Your task to perform on an android device: turn off sleep mode Image 0: 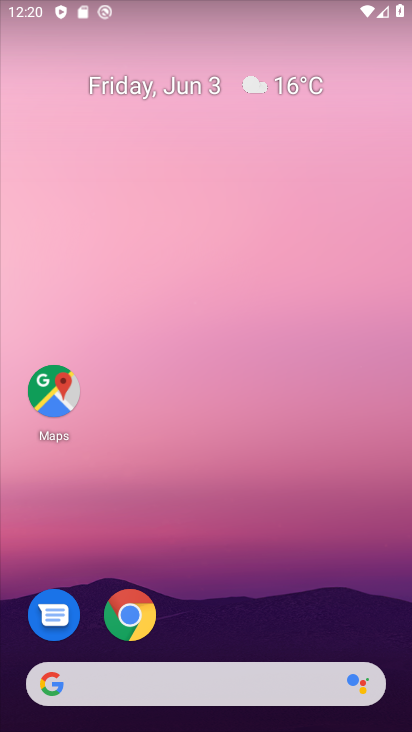
Step 0: drag from (193, 617) to (202, 269)
Your task to perform on an android device: turn off sleep mode Image 1: 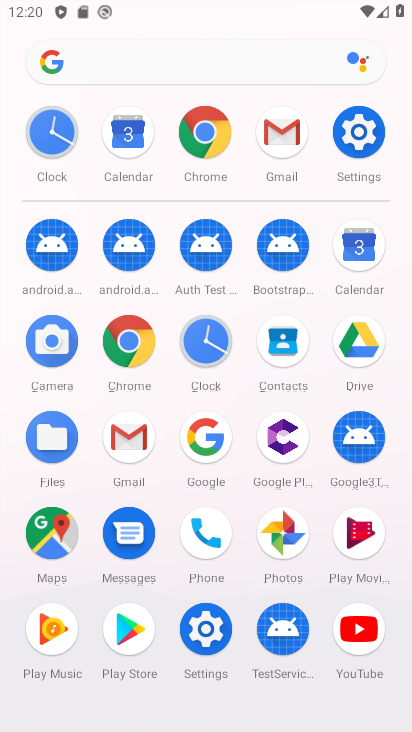
Step 1: click (351, 148)
Your task to perform on an android device: turn off sleep mode Image 2: 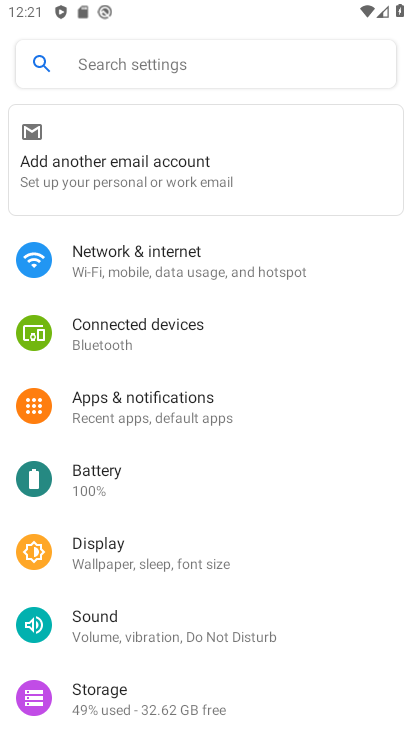
Step 2: task complete